Your task to perform on an android device: show emergency info Image 0: 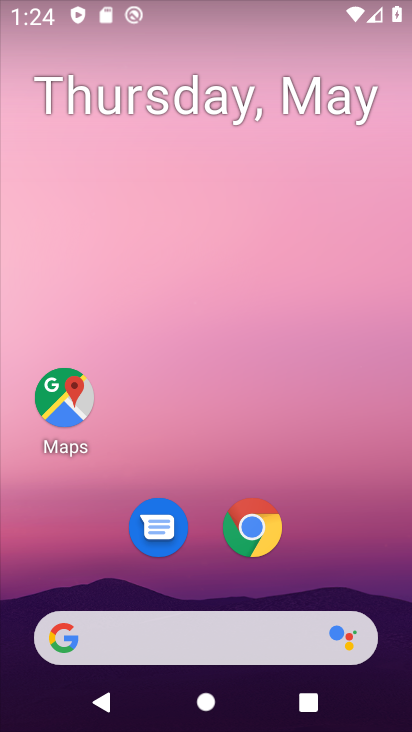
Step 0: drag from (328, 568) to (390, 13)
Your task to perform on an android device: show emergency info Image 1: 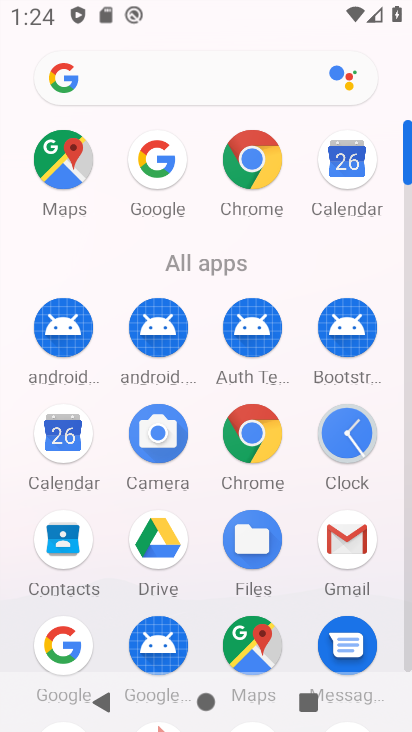
Step 1: click (410, 662)
Your task to perform on an android device: show emergency info Image 2: 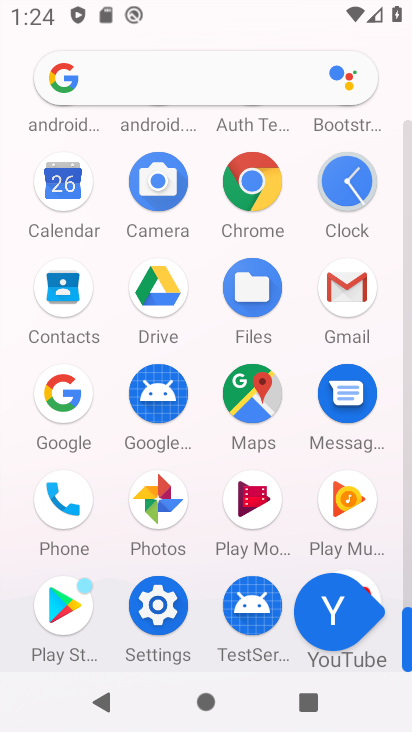
Step 2: click (406, 664)
Your task to perform on an android device: show emergency info Image 3: 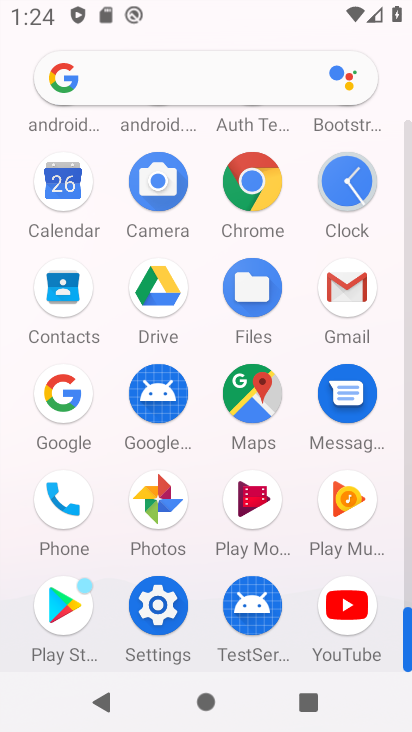
Step 3: click (406, 664)
Your task to perform on an android device: show emergency info Image 4: 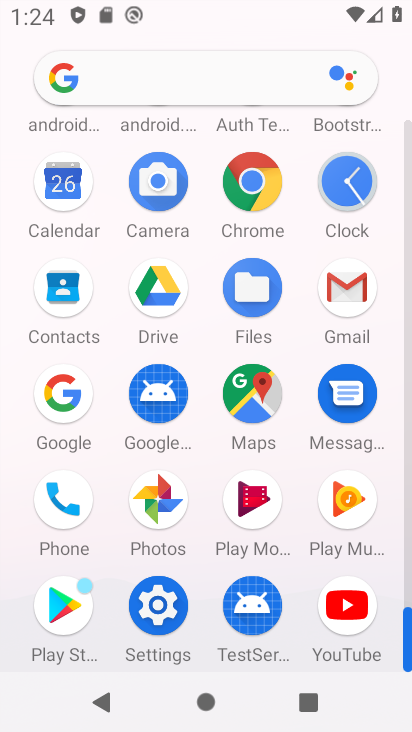
Step 4: click (406, 664)
Your task to perform on an android device: show emergency info Image 5: 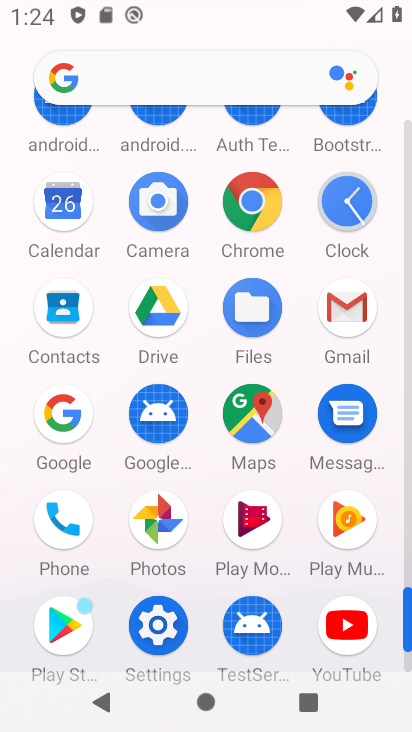
Step 5: click (152, 623)
Your task to perform on an android device: show emergency info Image 6: 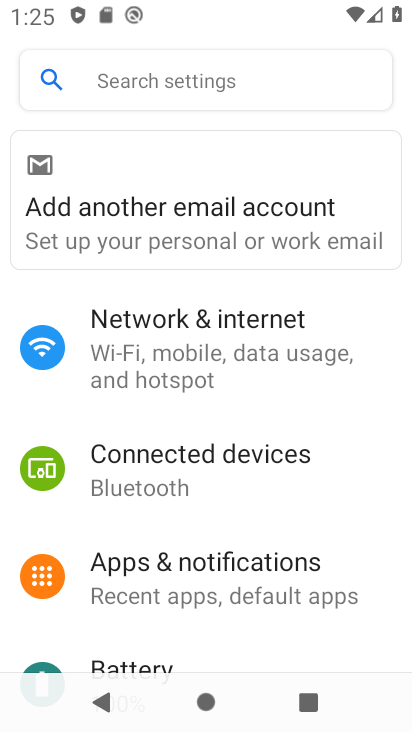
Step 6: drag from (226, 592) to (193, 142)
Your task to perform on an android device: show emergency info Image 7: 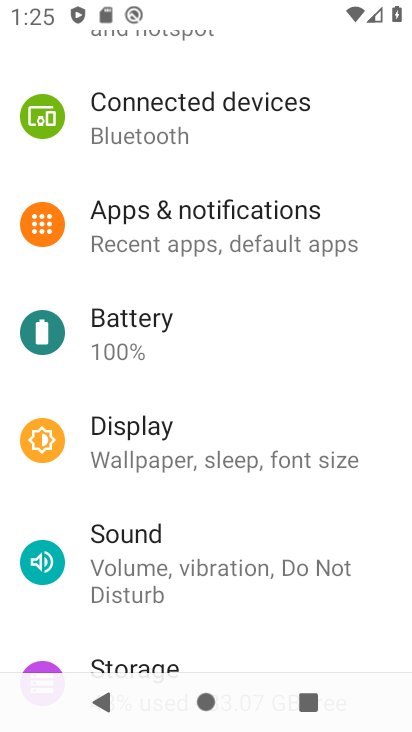
Step 7: drag from (281, 598) to (230, 163)
Your task to perform on an android device: show emergency info Image 8: 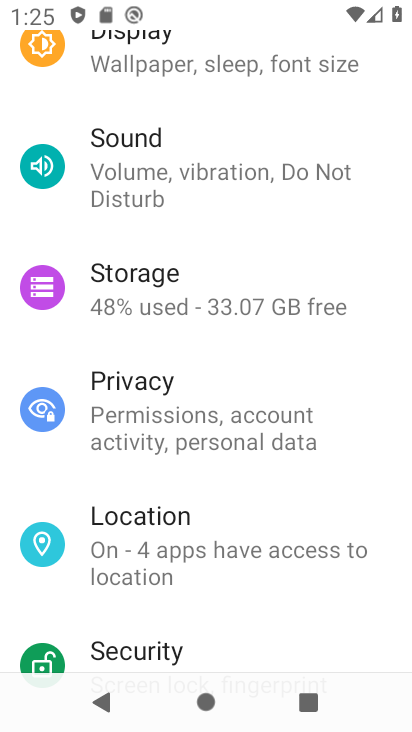
Step 8: drag from (275, 608) to (237, 203)
Your task to perform on an android device: show emergency info Image 9: 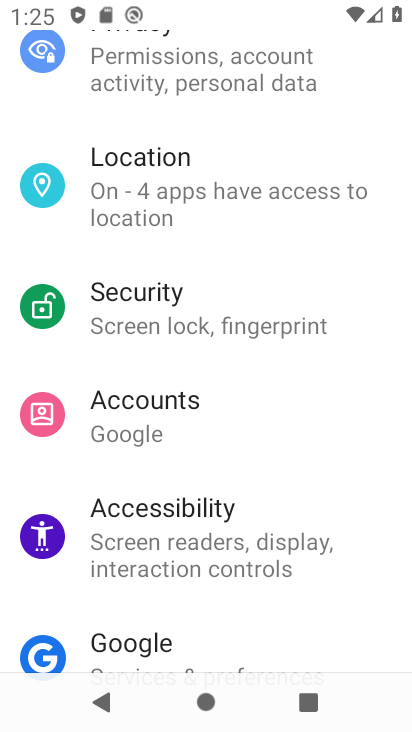
Step 9: drag from (257, 548) to (220, 1)
Your task to perform on an android device: show emergency info Image 10: 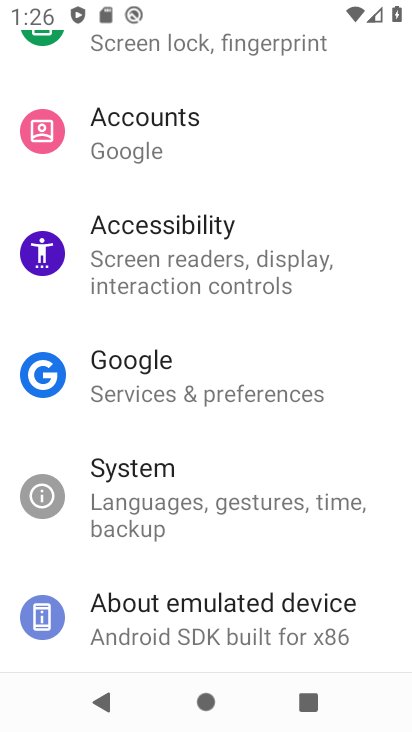
Step 10: click (205, 624)
Your task to perform on an android device: show emergency info Image 11: 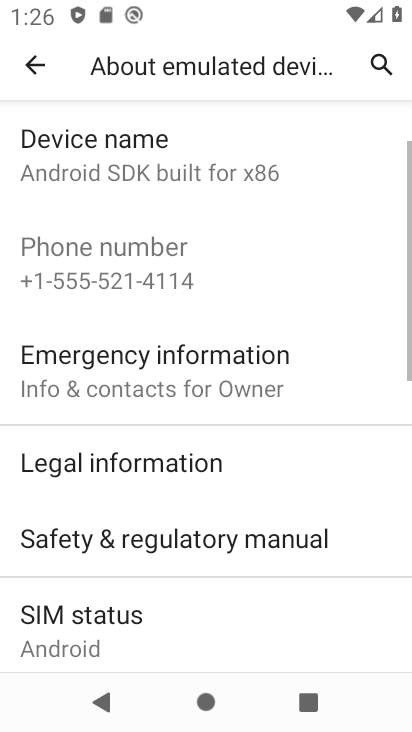
Step 11: click (190, 370)
Your task to perform on an android device: show emergency info Image 12: 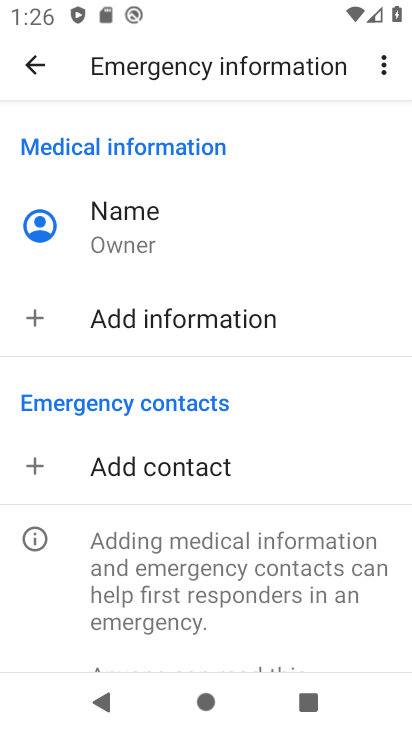
Step 12: task complete